Your task to perform on an android device: change your default location settings in chrome Image 0: 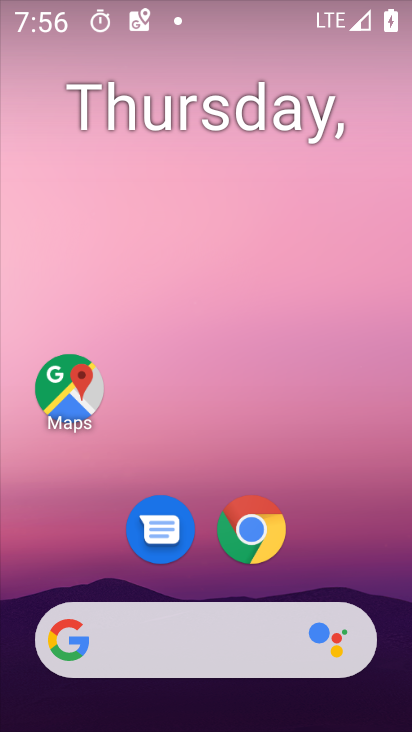
Step 0: drag from (374, 575) to (370, 162)
Your task to perform on an android device: change your default location settings in chrome Image 1: 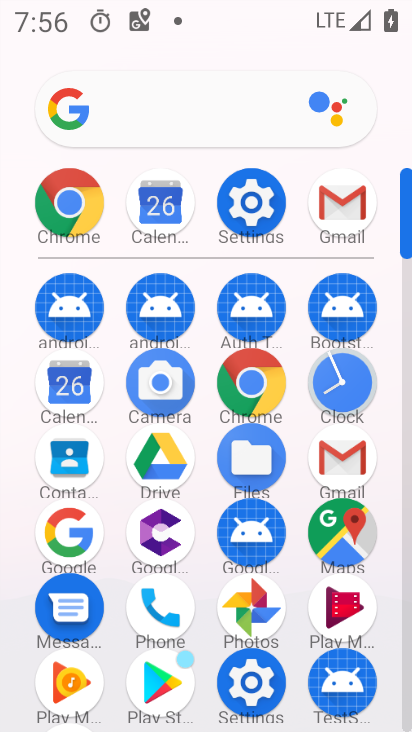
Step 1: click (261, 374)
Your task to perform on an android device: change your default location settings in chrome Image 2: 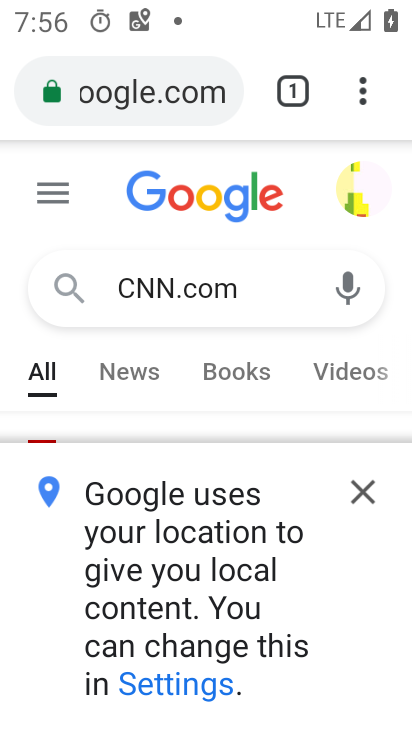
Step 2: click (364, 108)
Your task to perform on an android device: change your default location settings in chrome Image 3: 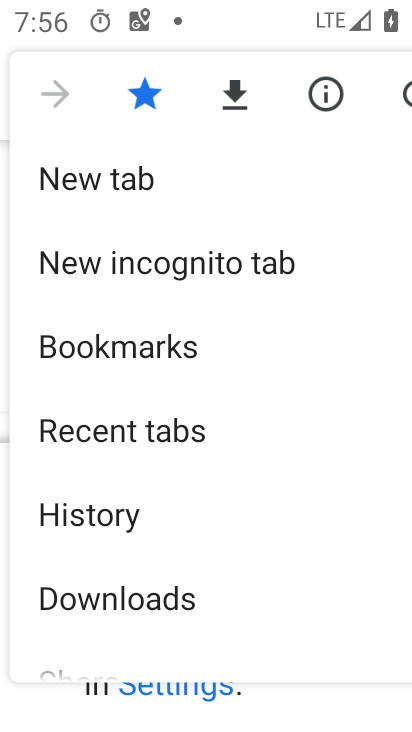
Step 3: drag from (309, 553) to (319, 436)
Your task to perform on an android device: change your default location settings in chrome Image 4: 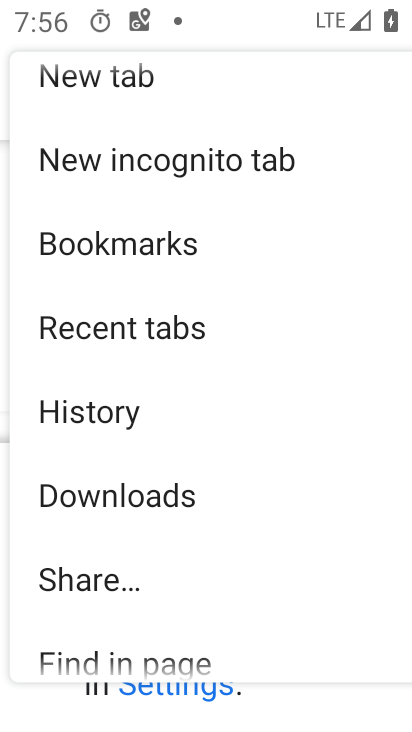
Step 4: drag from (316, 568) to (320, 428)
Your task to perform on an android device: change your default location settings in chrome Image 5: 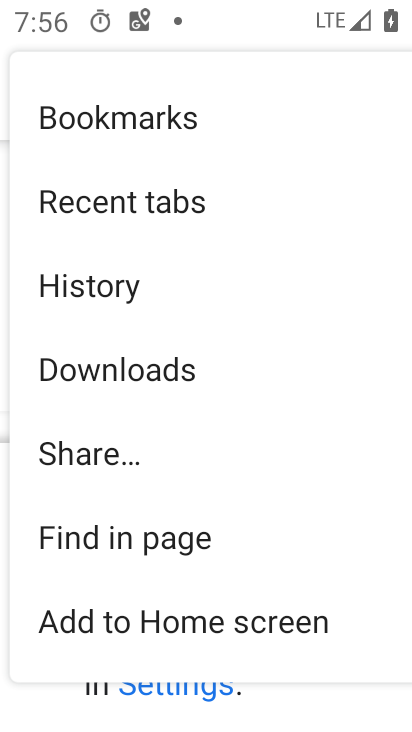
Step 5: drag from (310, 551) to (315, 413)
Your task to perform on an android device: change your default location settings in chrome Image 6: 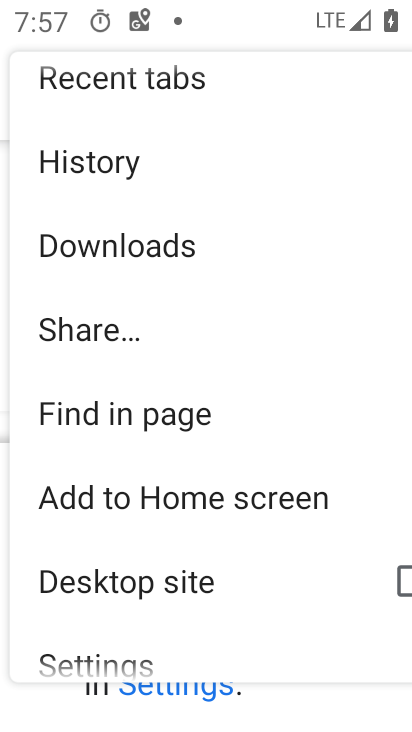
Step 6: drag from (302, 596) to (320, 369)
Your task to perform on an android device: change your default location settings in chrome Image 7: 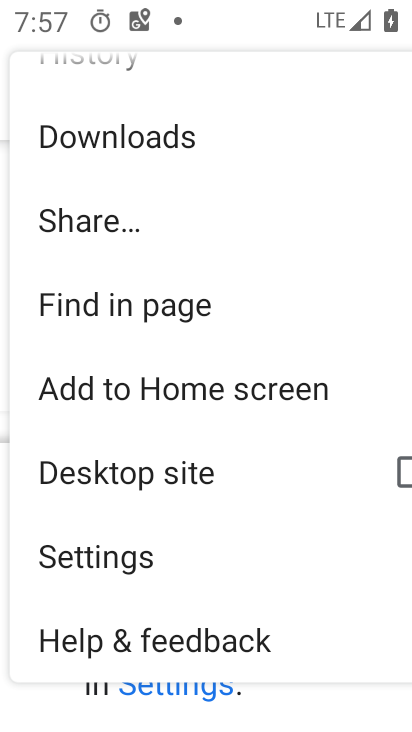
Step 7: drag from (317, 558) to (342, 375)
Your task to perform on an android device: change your default location settings in chrome Image 8: 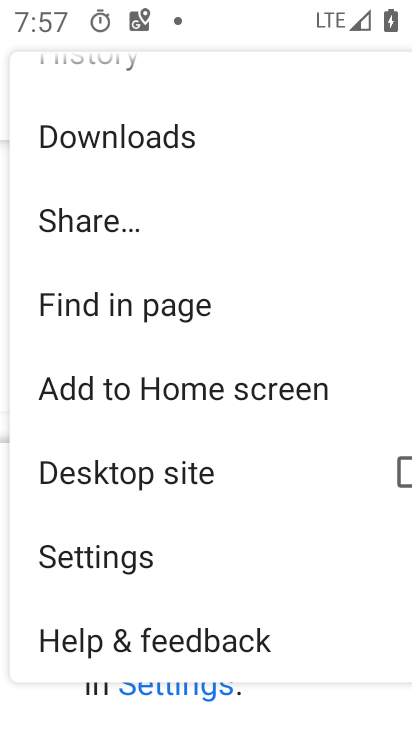
Step 8: click (174, 558)
Your task to perform on an android device: change your default location settings in chrome Image 9: 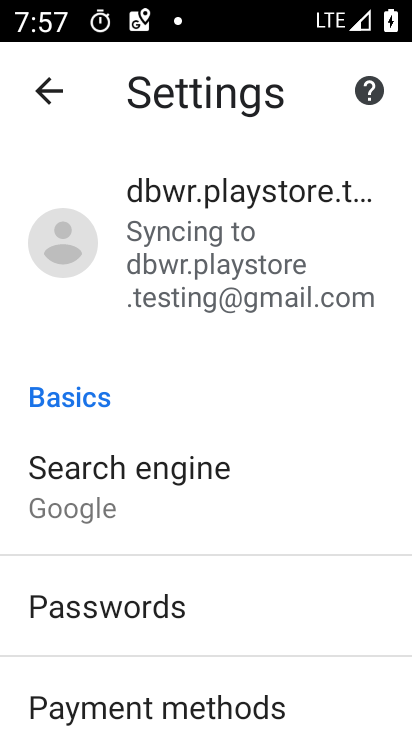
Step 9: drag from (319, 589) to (333, 493)
Your task to perform on an android device: change your default location settings in chrome Image 10: 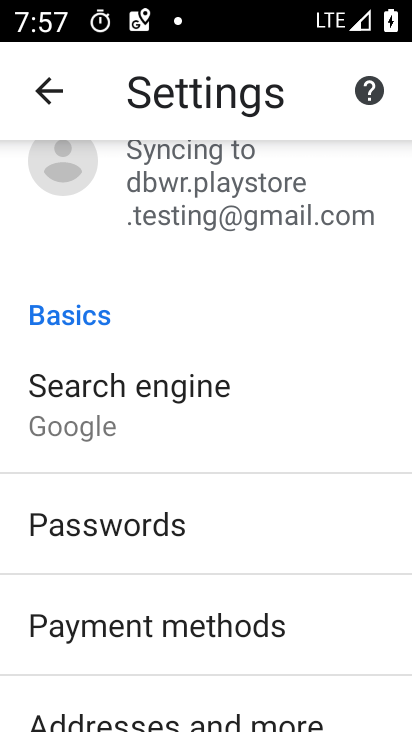
Step 10: drag from (341, 611) to (344, 491)
Your task to perform on an android device: change your default location settings in chrome Image 11: 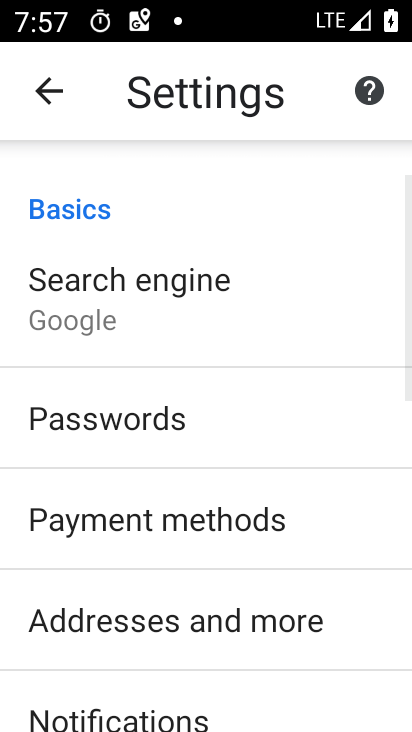
Step 11: drag from (336, 586) to (341, 487)
Your task to perform on an android device: change your default location settings in chrome Image 12: 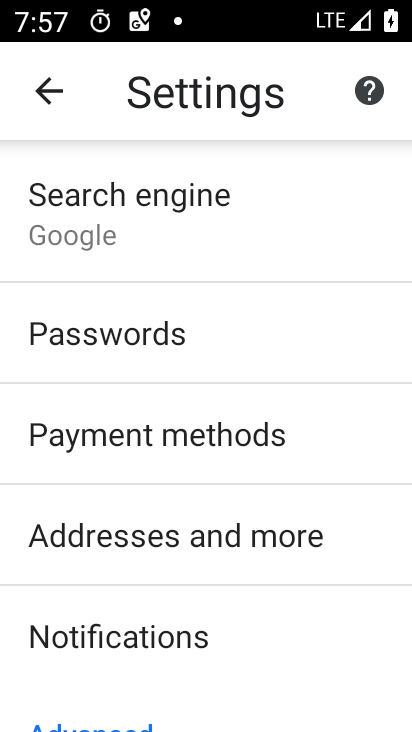
Step 12: drag from (329, 603) to (335, 520)
Your task to perform on an android device: change your default location settings in chrome Image 13: 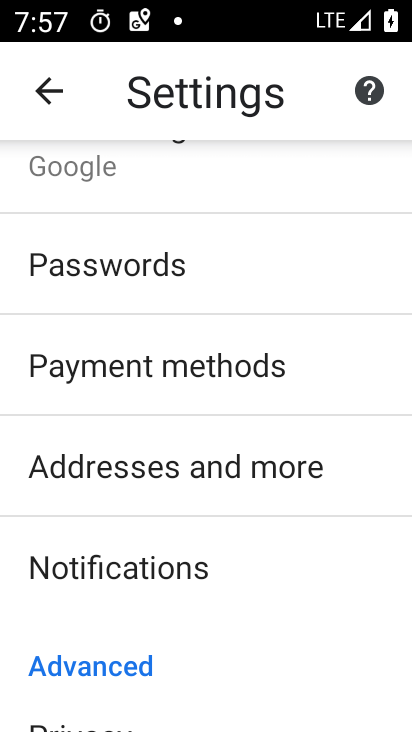
Step 13: drag from (334, 619) to (333, 496)
Your task to perform on an android device: change your default location settings in chrome Image 14: 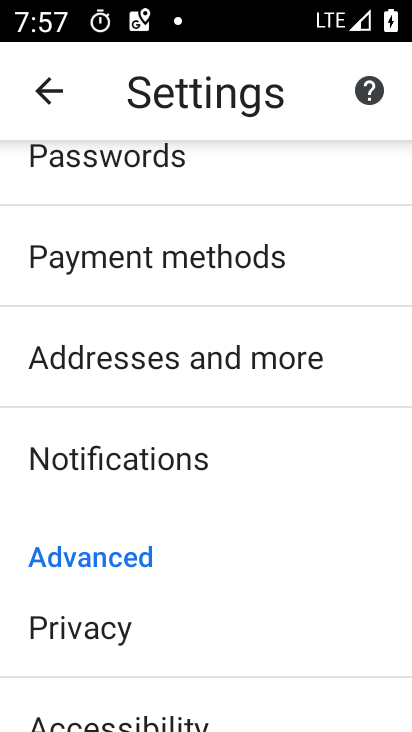
Step 14: drag from (326, 623) to (327, 483)
Your task to perform on an android device: change your default location settings in chrome Image 15: 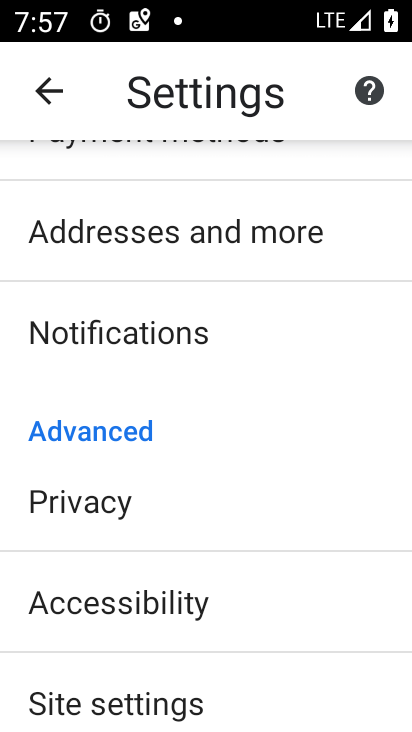
Step 15: drag from (327, 581) to (330, 473)
Your task to perform on an android device: change your default location settings in chrome Image 16: 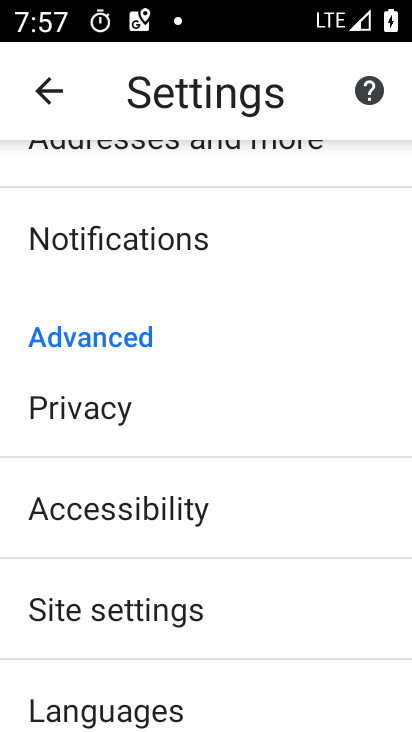
Step 16: click (322, 620)
Your task to perform on an android device: change your default location settings in chrome Image 17: 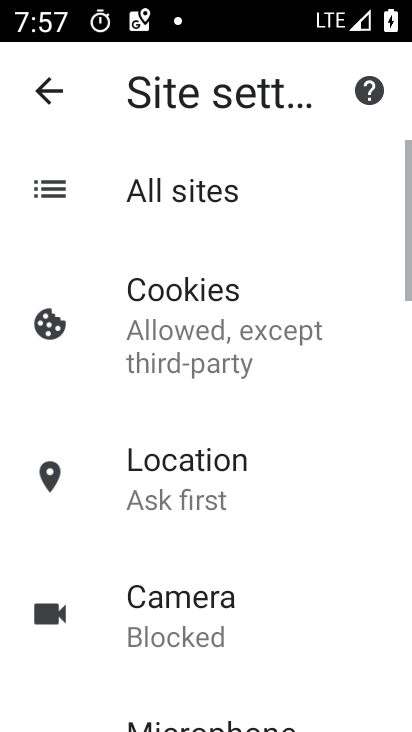
Step 17: click (290, 516)
Your task to perform on an android device: change your default location settings in chrome Image 18: 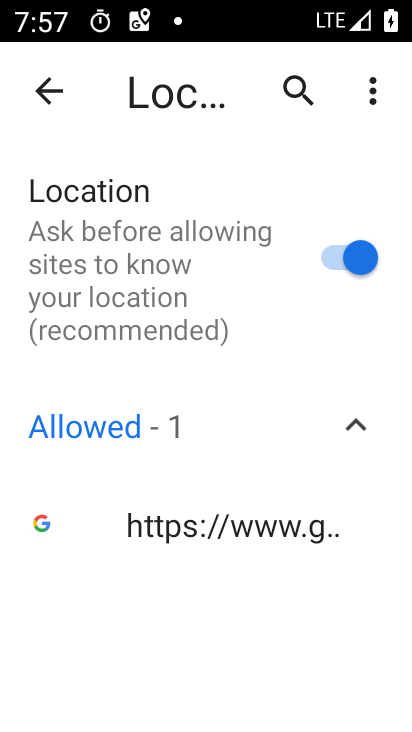
Step 18: click (357, 264)
Your task to perform on an android device: change your default location settings in chrome Image 19: 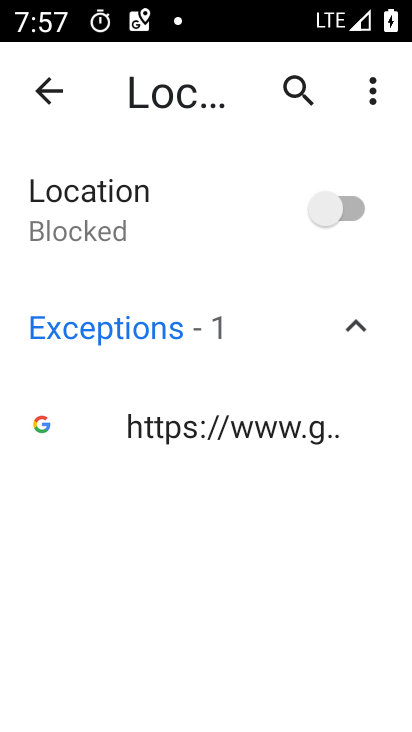
Step 19: task complete